Your task to perform on an android device: find which apps use the phone's location Image 0: 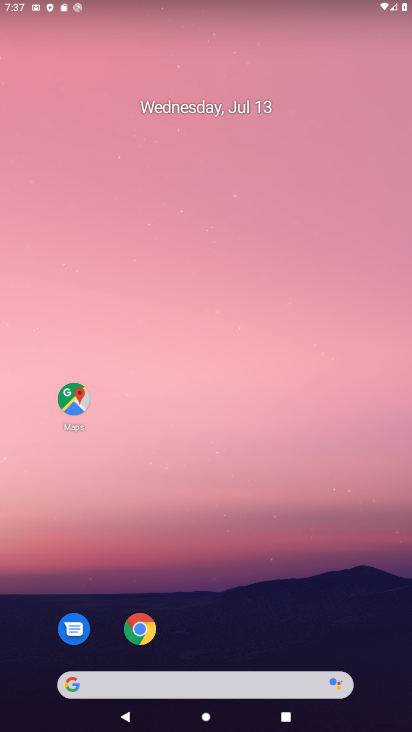
Step 0: drag from (214, 620) to (222, 126)
Your task to perform on an android device: find which apps use the phone's location Image 1: 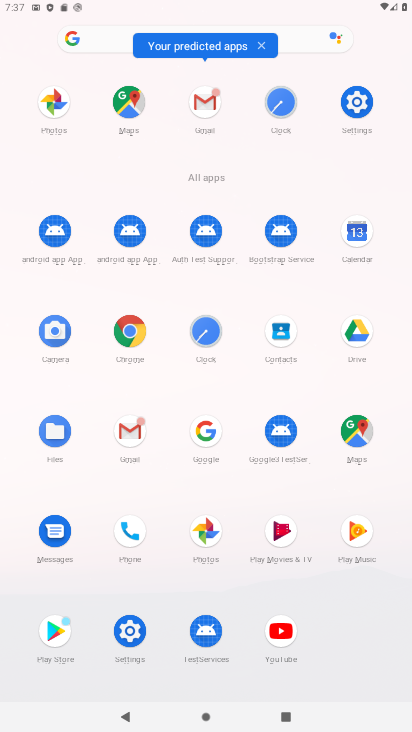
Step 1: click (127, 629)
Your task to perform on an android device: find which apps use the phone's location Image 2: 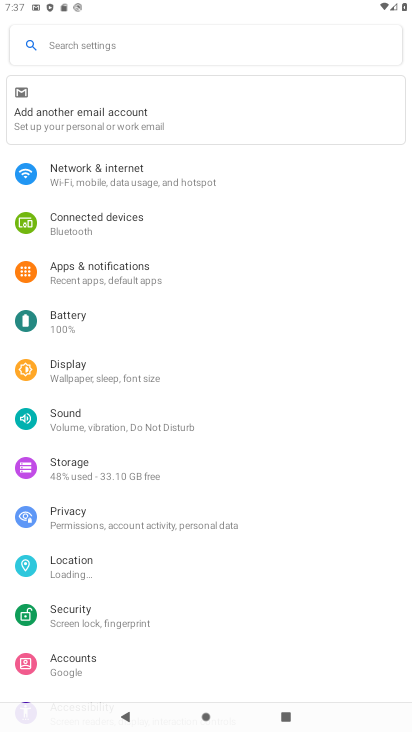
Step 2: click (65, 570)
Your task to perform on an android device: find which apps use the phone's location Image 3: 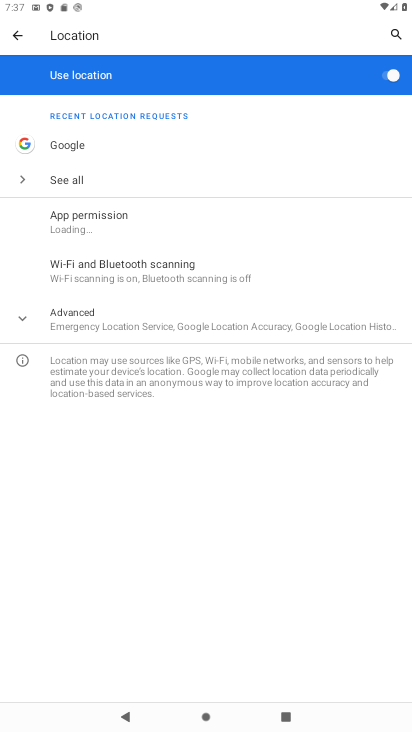
Step 3: click (111, 227)
Your task to perform on an android device: find which apps use the phone's location Image 4: 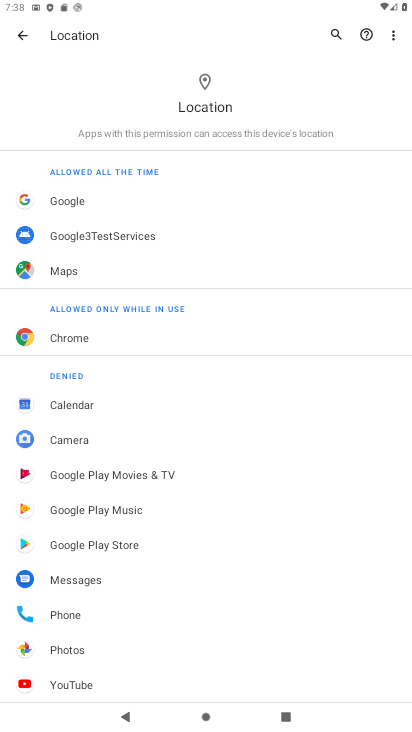
Step 4: task complete